Your task to perform on an android device: see tabs open on other devices in the chrome app Image 0: 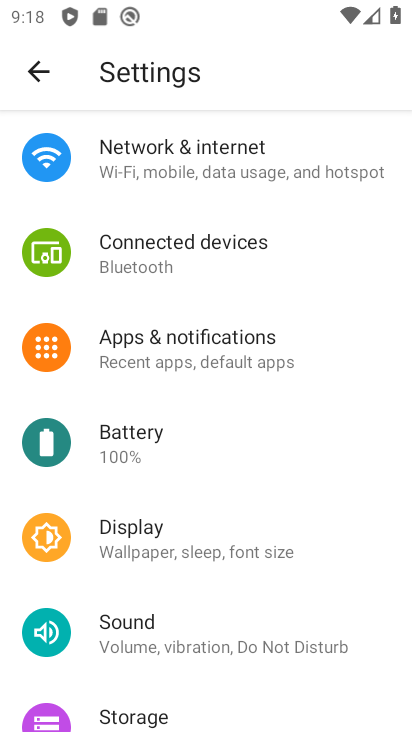
Step 0: press home button
Your task to perform on an android device: see tabs open on other devices in the chrome app Image 1: 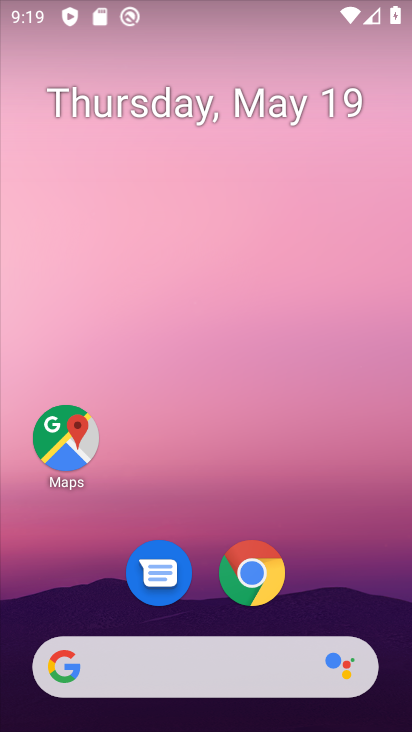
Step 1: click (247, 580)
Your task to perform on an android device: see tabs open on other devices in the chrome app Image 2: 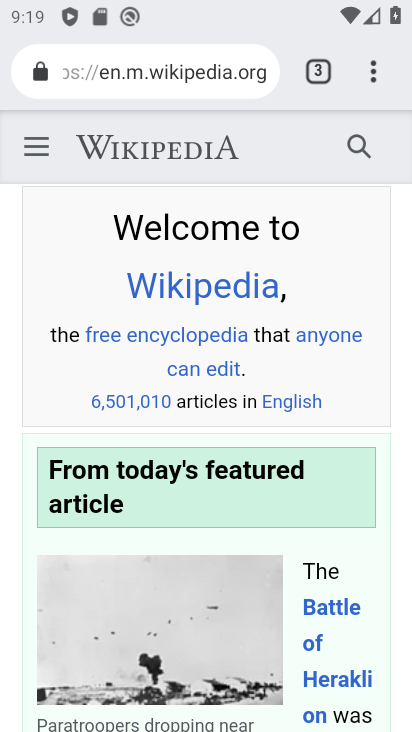
Step 2: task complete